Your task to perform on an android device: Open calendar and show me the third week of next month Image 0: 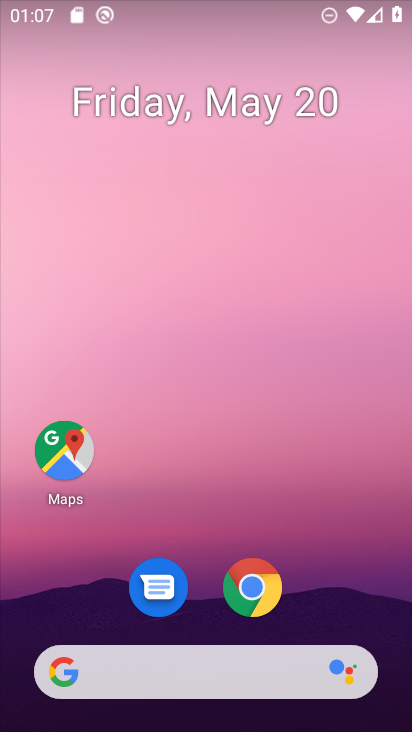
Step 0: drag from (391, 507) to (360, 295)
Your task to perform on an android device: Open calendar and show me the third week of next month Image 1: 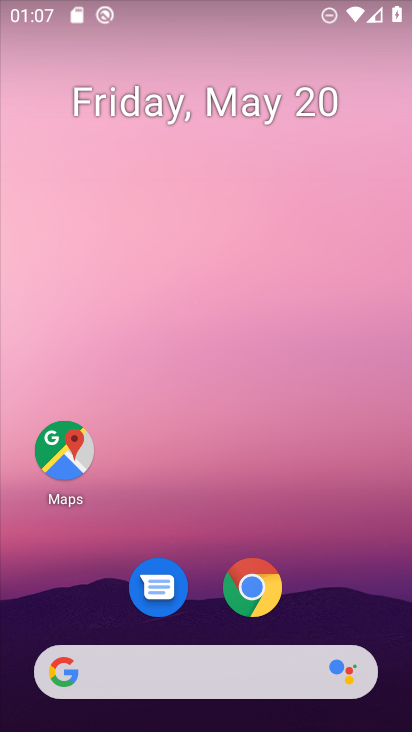
Step 1: drag from (364, 559) to (319, 201)
Your task to perform on an android device: Open calendar and show me the third week of next month Image 2: 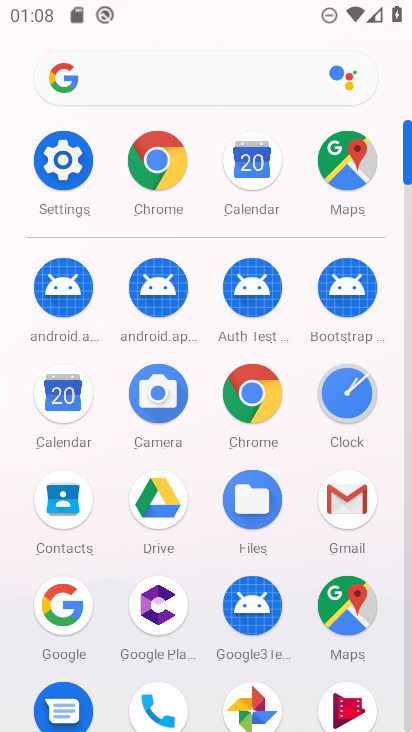
Step 2: click (63, 388)
Your task to perform on an android device: Open calendar and show me the third week of next month Image 3: 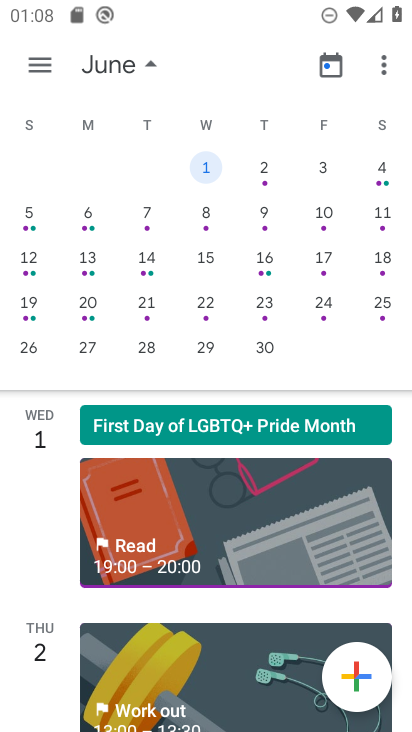
Step 3: click (148, 269)
Your task to perform on an android device: Open calendar and show me the third week of next month Image 4: 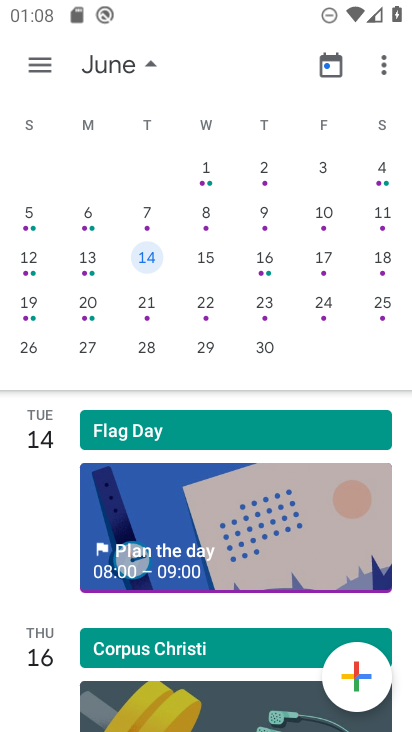
Step 4: task complete